Your task to perform on an android device: What's on the menu at Domino's? Image 0: 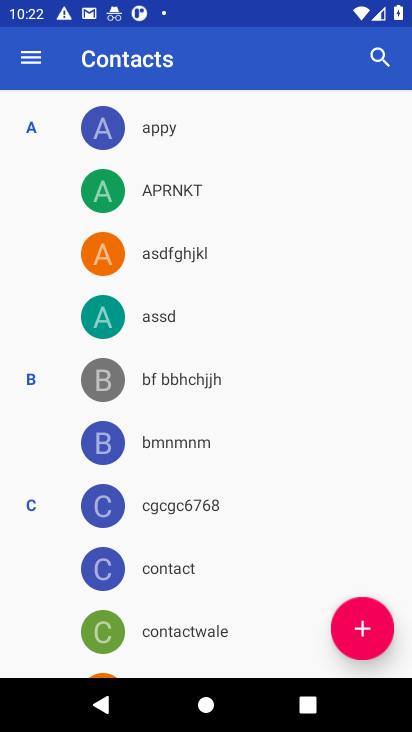
Step 0: press home button
Your task to perform on an android device: What's on the menu at Domino's? Image 1: 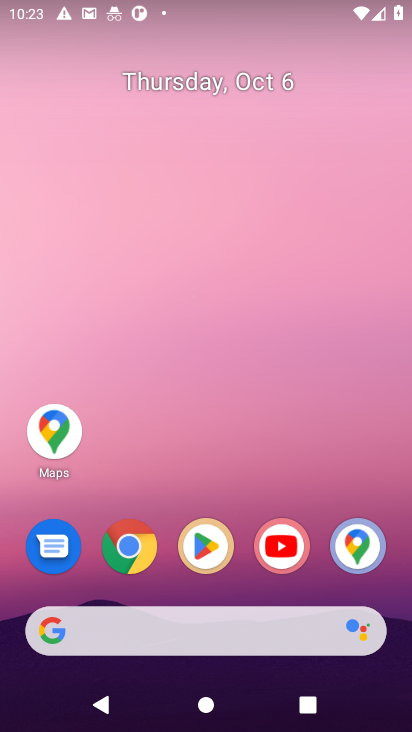
Step 1: click (132, 549)
Your task to perform on an android device: What's on the menu at Domino's? Image 2: 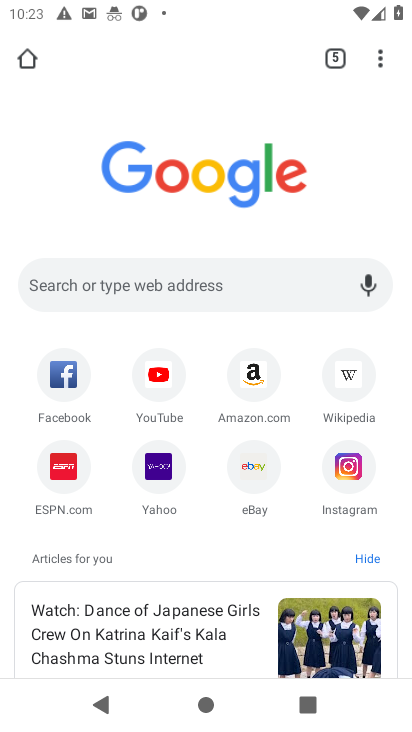
Step 2: click (109, 282)
Your task to perform on an android device: What's on the menu at Domino's? Image 3: 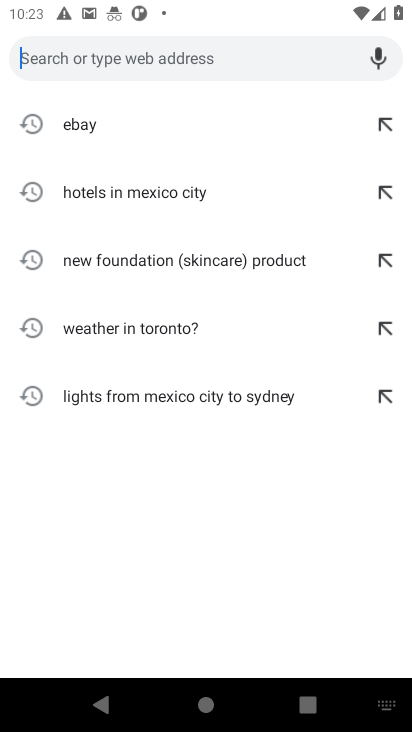
Step 3: type "menu at Domino's?"
Your task to perform on an android device: What's on the menu at Domino's? Image 4: 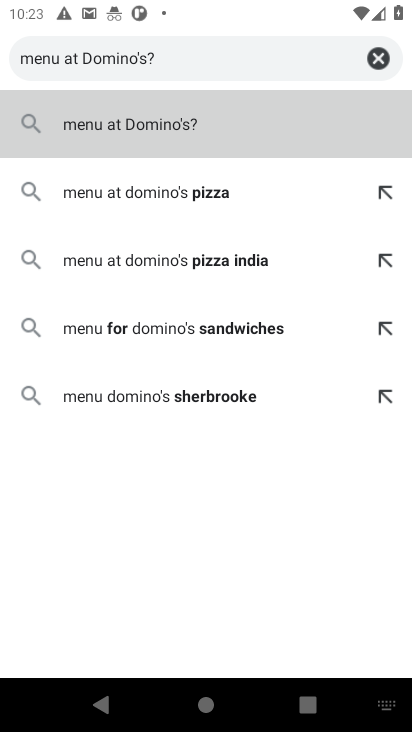
Step 4: click (102, 120)
Your task to perform on an android device: What's on the menu at Domino's? Image 5: 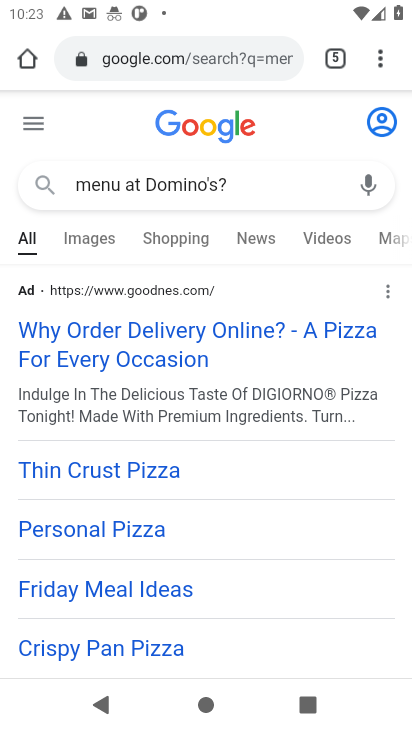
Step 5: drag from (210, 425) to (176, 136)
Your task to perform on an android device: What's on the menu at Domino's? Image 6: 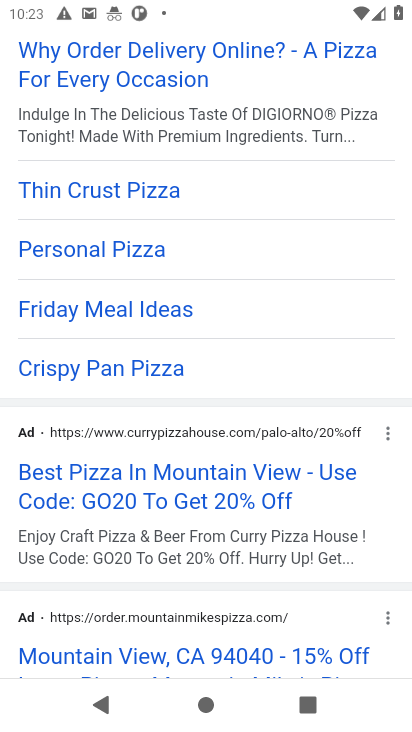
Step 6: drag from (188, 572) to (180, 345)
Your task to perform on an android device: What's on the menu at Domino's? Image 7: 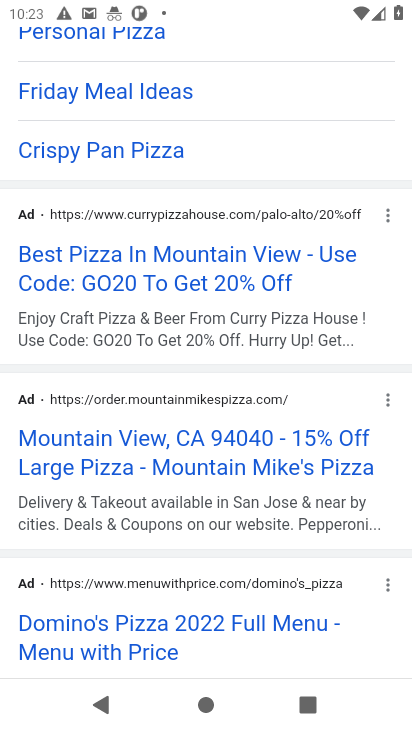
Step 7: drag from (211, 601) to (187, 312)
Your task to perform on an android device: What's on the menu at Domino's? Image 8: 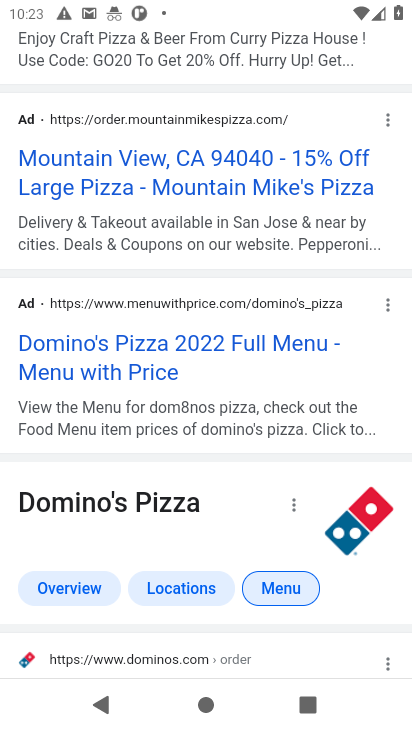
Step 8: click (97, 360)
Your task to perform on an android device: What's on the menu at Domino's? Image 9: 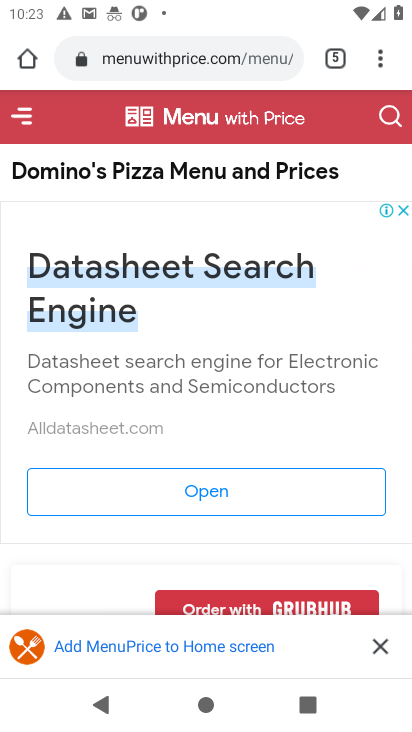
Step 9: click (380, 645)
Your task to perform on an android device: What's on the menu at Domino's? Image 10: 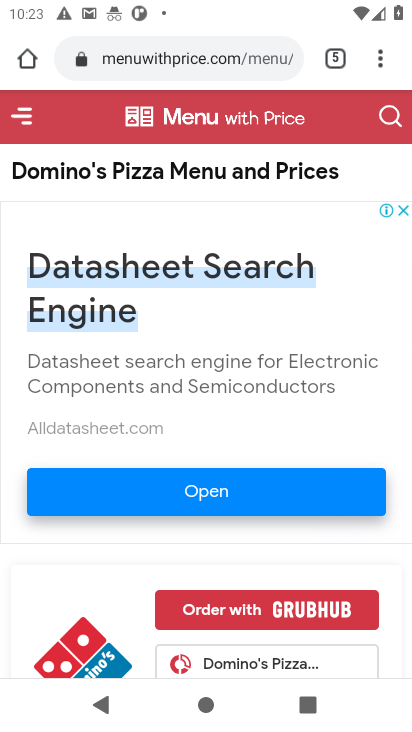
Step 10: task complete